Your task to perform on an android device: What is the recent news? Image 0: 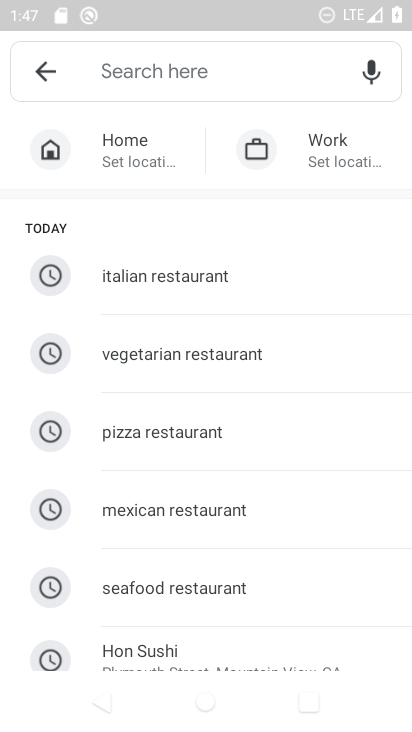
Step 0: press home button
Your task to perform on an android device: What is the recent news? Image 1: 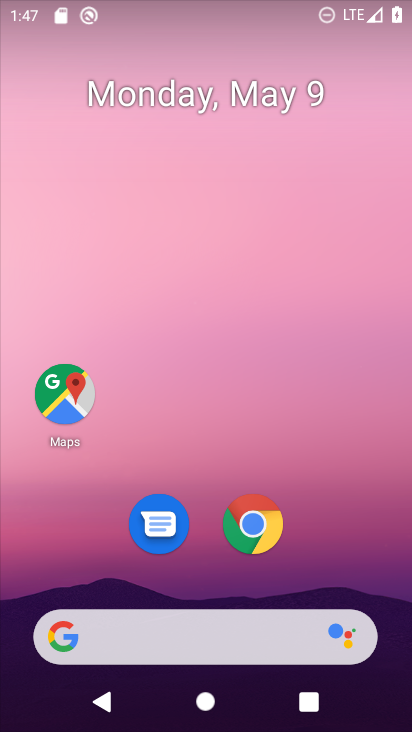
Step 1: click (156, 642)
Your task to perform on an android device: What is the recent news? Image 2: 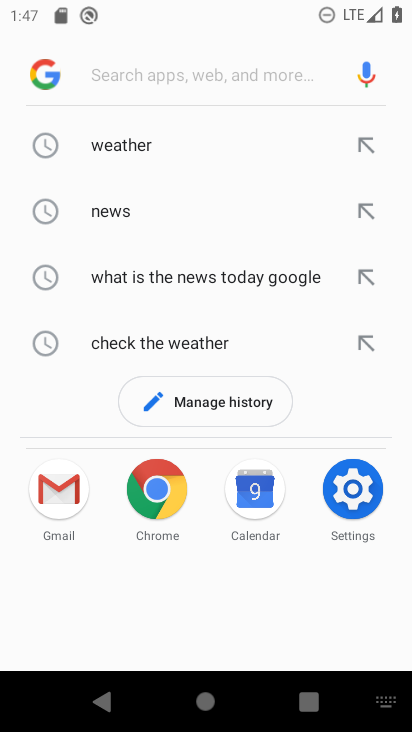
Step 2: click (41, 209)
Your task to perform on an android device: What is the recent news? Image 3: 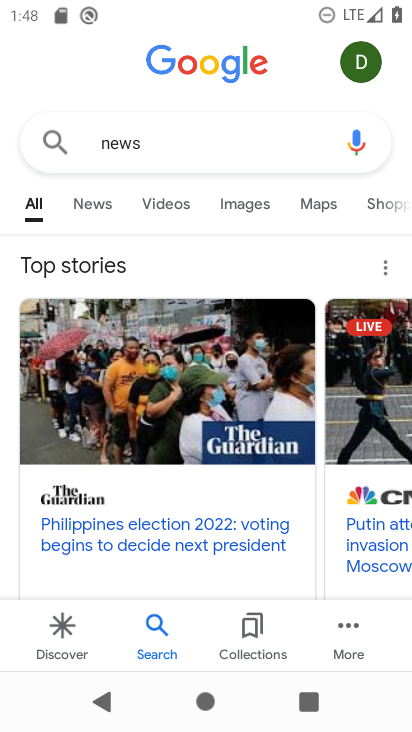
Step 3: click (94, 195)
Your task to perform on an android device: What is the recent news? Image 4: 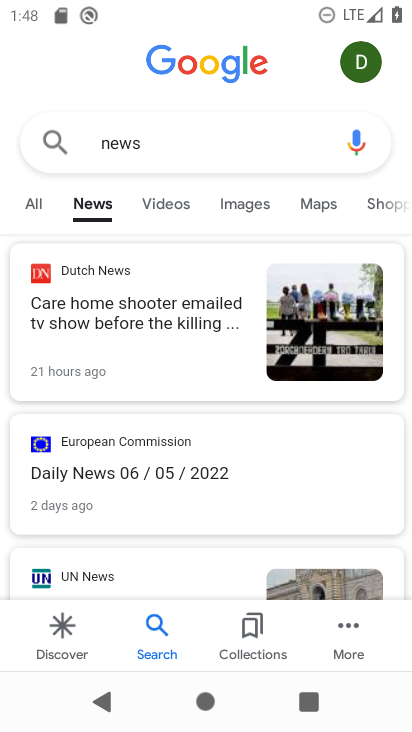
Step 4: task complete